Your task to perform on an android device: change the clock display to analog Image 0: 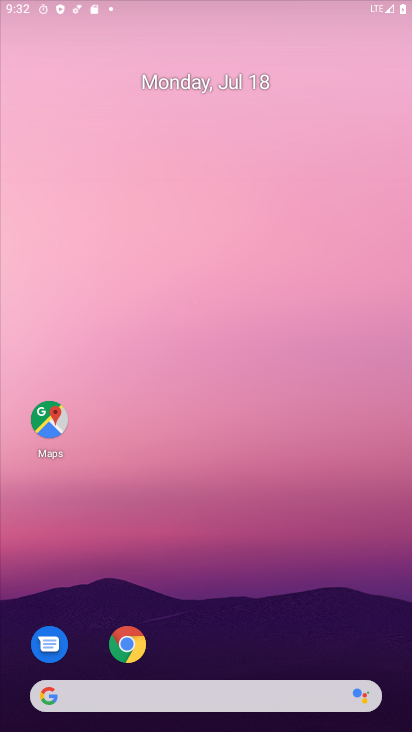
Step 0: press home button
Your task to perform on an android device: change the clock display to analog Image 1: 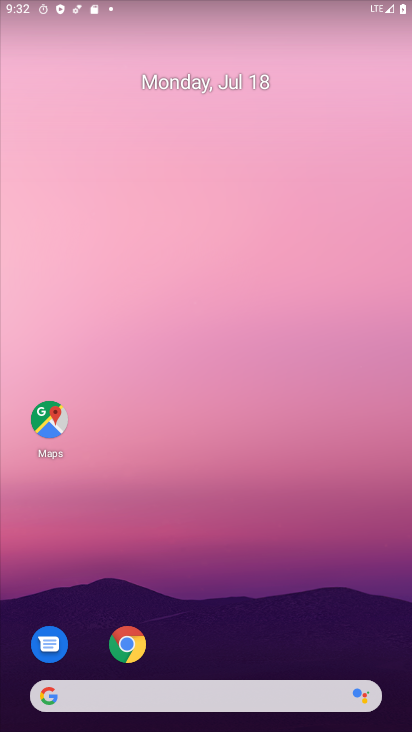
Step 1: drag from (214, 664) to (182, 112)
Your task to perform on an android device: change the clock display to analog Image 2: 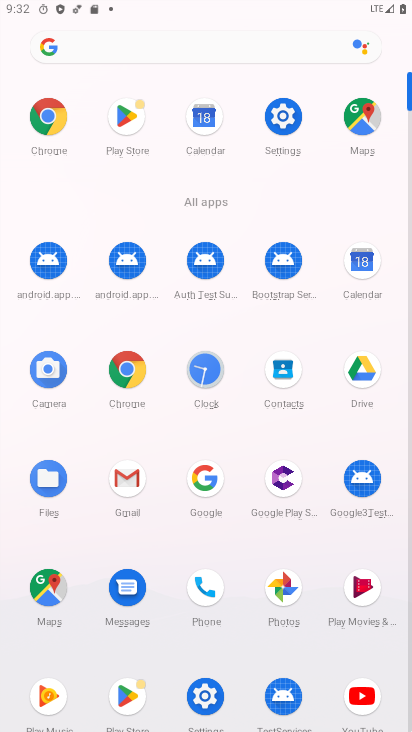
Step 2: click (201, 362)
Your task to perform on an android device: change the clock display to analog Image 3: 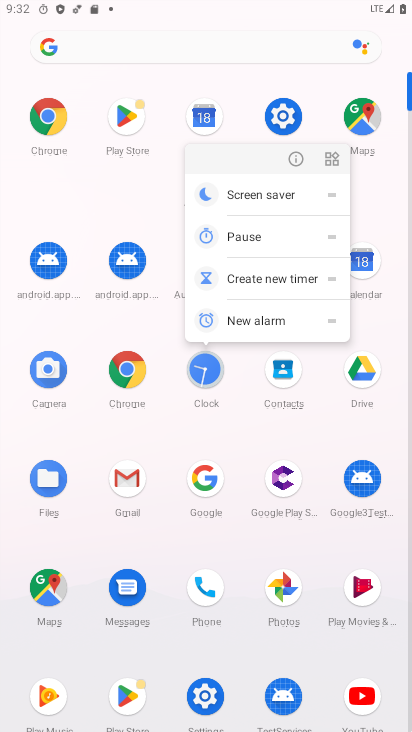
Step 3: click (201, 362)
Your task to perform on an android device: change the clock display to analog Image 4: 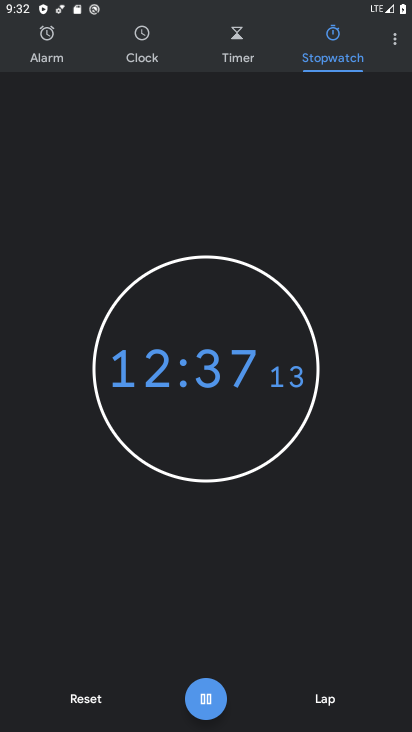
Step 4: click (386, 44)
Your task to perform on an android device: change the clock display to analog Image 5: 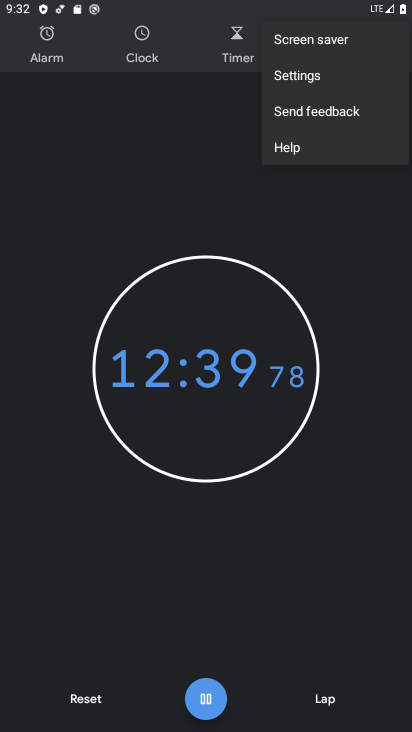
Step 5: click (307, 73)
Your task to perform on an android device: change the clock display to analog Image 6: 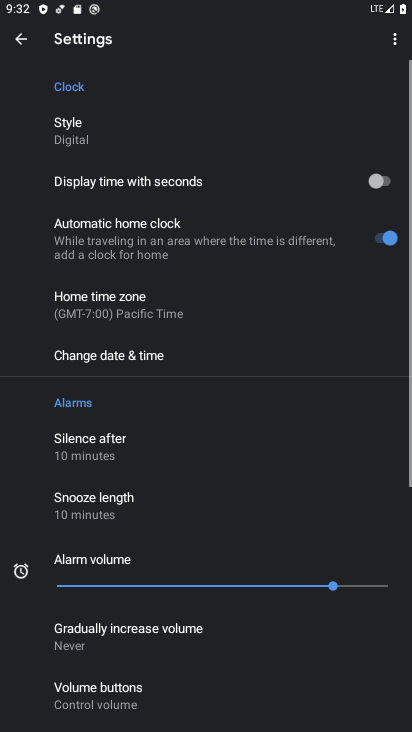
Step 6: click (104, 124)
Your task to perform on an android device: change the clock display to analog Image 7: 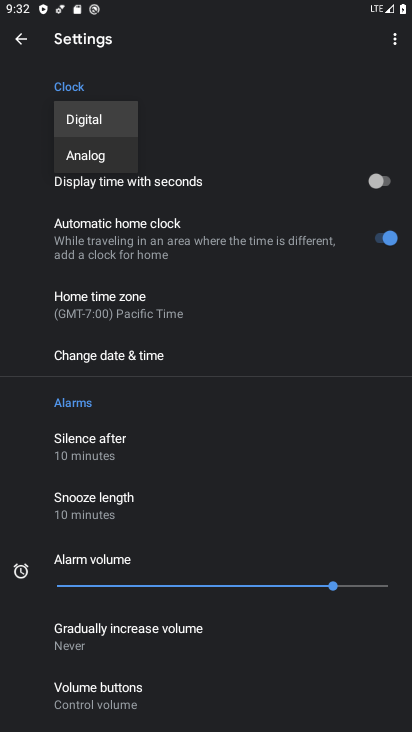
Step 7: click (99, 153)
Your task to perform on an android device: change the clock display to analog Image 8: 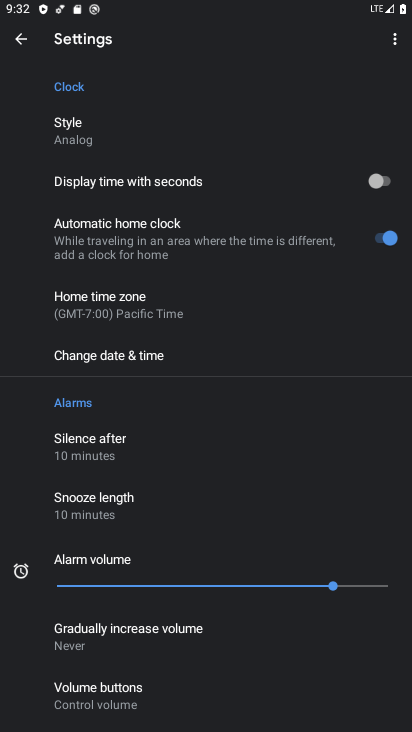
Step 8: task complete